Your task to perform on an android device: manage bookmarks in the chrome app Image 0: 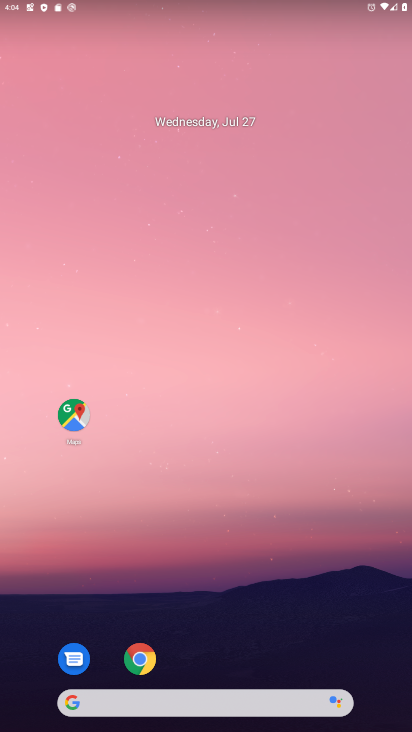
Step 0: click (144, 657)
Your task to perform on an android device: manage bookmarks in the chrome app Image 1: 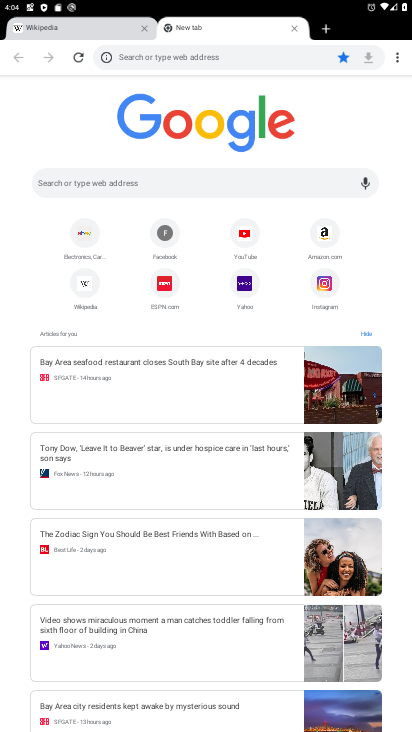
Step 1: click (399, 56)
Your task to perform on an android device: manage bookmarks in the chrome app Image 2: 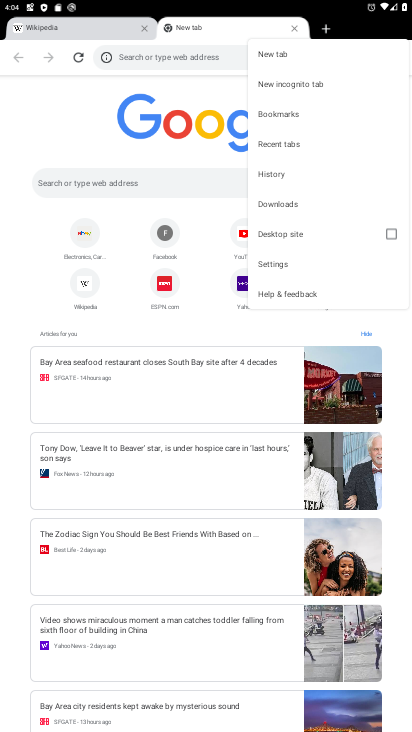
Step 2: click (287, 117)
Your task to perform on an android device: manage bookmarks in the chrome app Image 3: 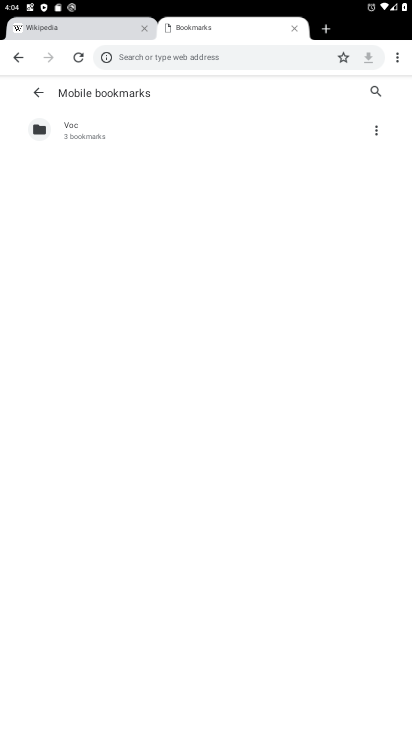
Step 3: click (374, 126)
Your task to perform on an android device: manage bookmarks in the chrome app Image 4: 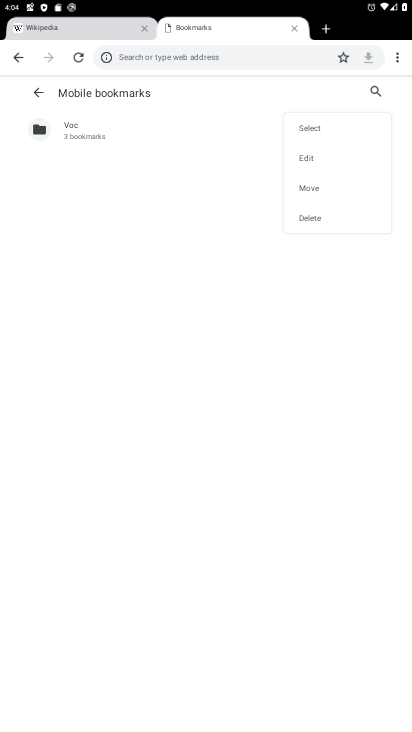
Step 4: click (314, 220)
Your task to perform on an android device: manage bookmarks in the chrome app Image 5: 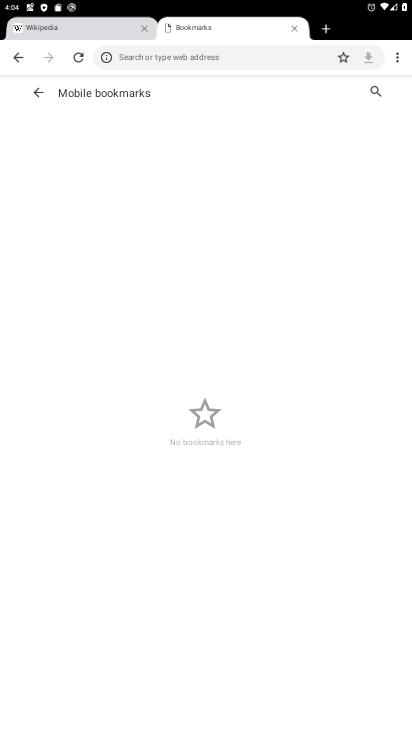
Step 5: task complete